Your task to perform on an android device: toggle javascript in the chrome app Image 0: 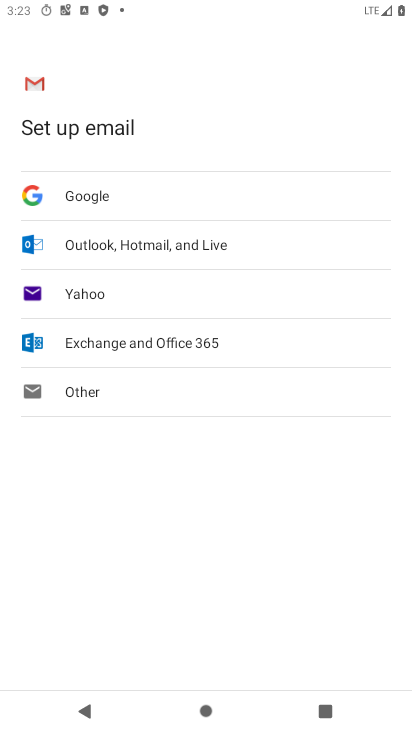
Step 0: press home button
Your task to perform on an android device: toggle javascript in the chrome app Image 1: 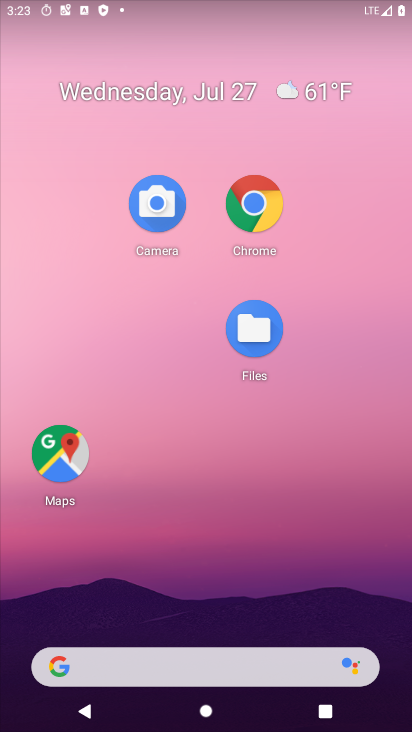
Step 1: click (262, 222)
Your task to perform on an android device: toggle javascript in the chrome app Image 2: 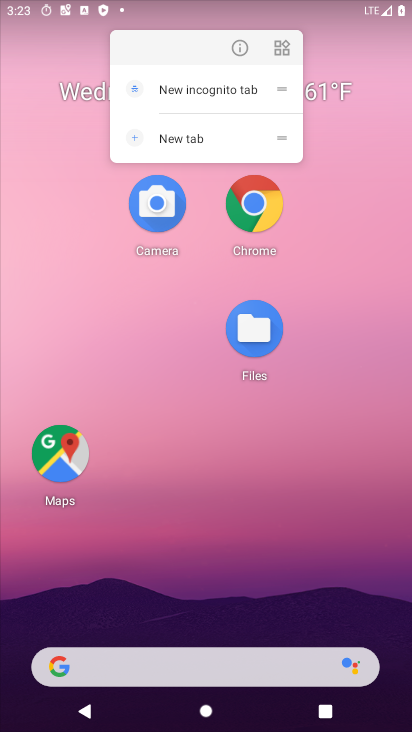
Step 2: click (262, 222)
Your task to perform on an android device: toggle javascript in the chrome app Image 3: 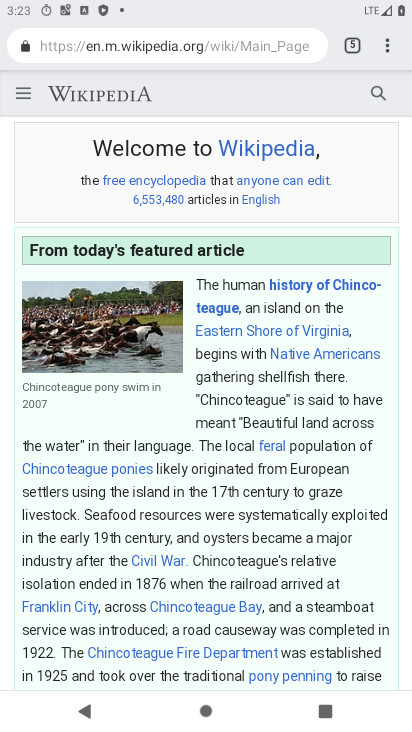
Step 3: click (387, 51)
Your task to perform on an android device: toggle javascript in the chrome app Image 4: 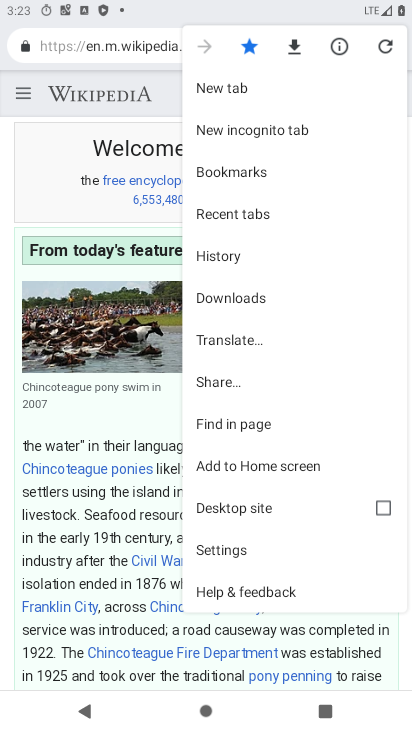
Step 4: click (241, 553)
Your task to perform on an android device: toggle javascript in the chrome app Image 5: 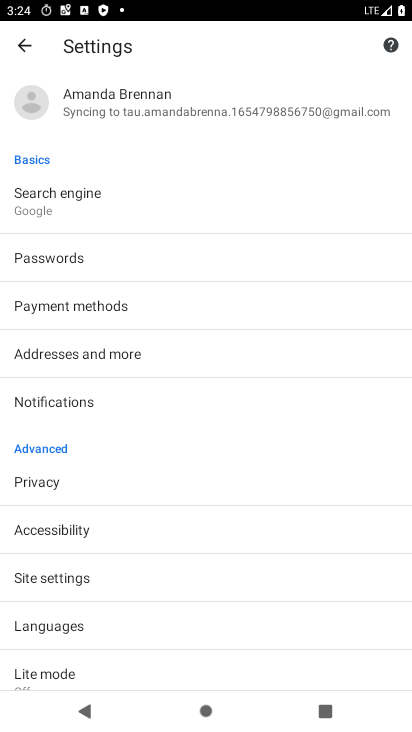
Step 5: click (118, 580)
Your task to perform on an android device: toggle javascript in the chrome app Image 6: 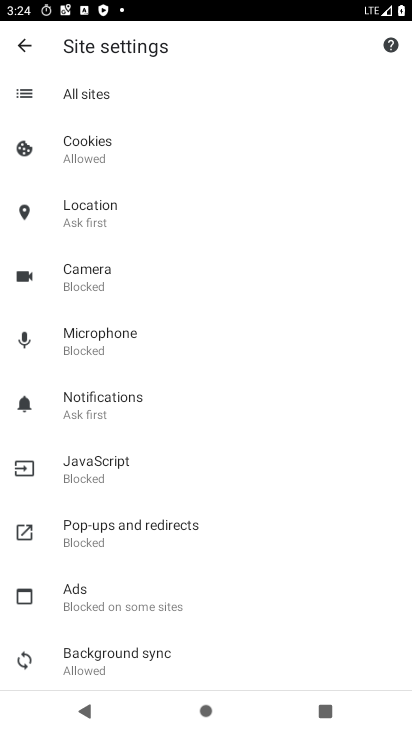
Step 6: click (124, 474)
Your task to perform on an android device: toggle javascript in the chrome app Image 7: 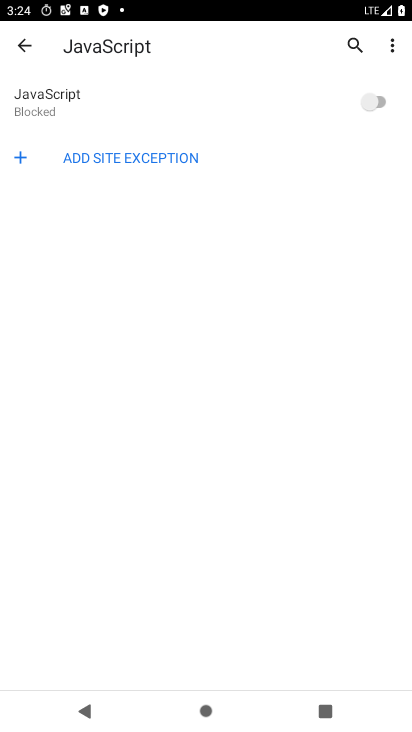
Step 7: click (378, 99)
Your task to perform on an android device: toggle javascript in the chrome app Image 8: 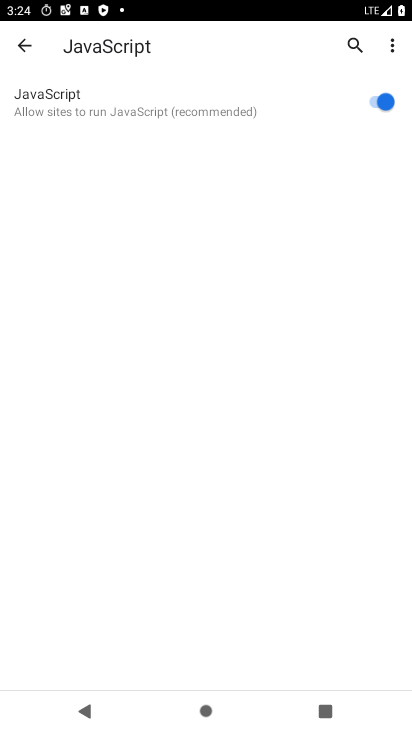
Step 8: task complete